Your task to perform on an android device: What's the weather? Image 0: 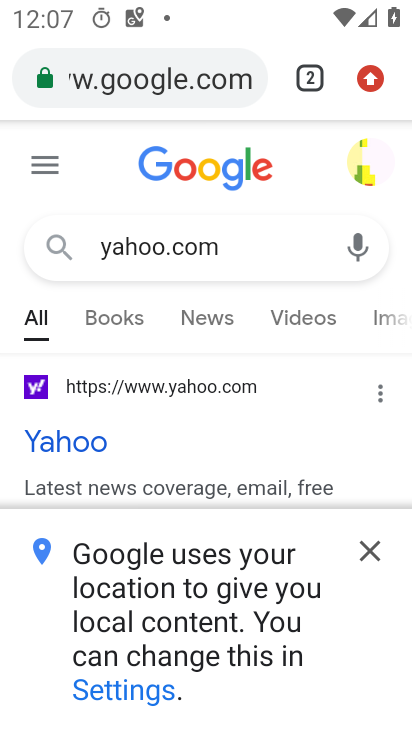
Step 0: click (273, 254)
Your task to perform on an android device: What's the weather? Image 1: 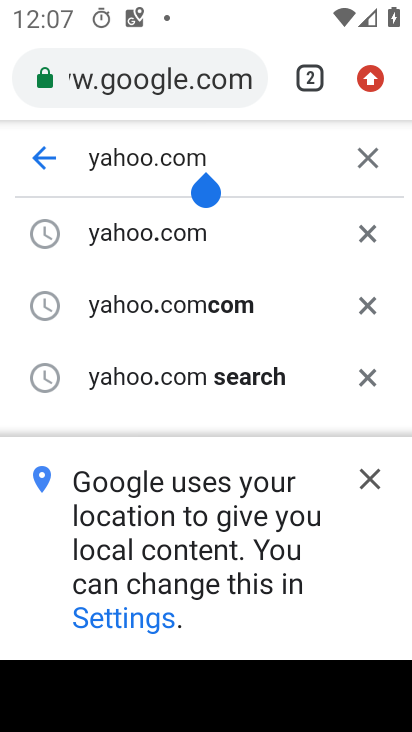
Step 1: click (361, 158)
Your task to perform on an android device: What's the weather? Image 2: 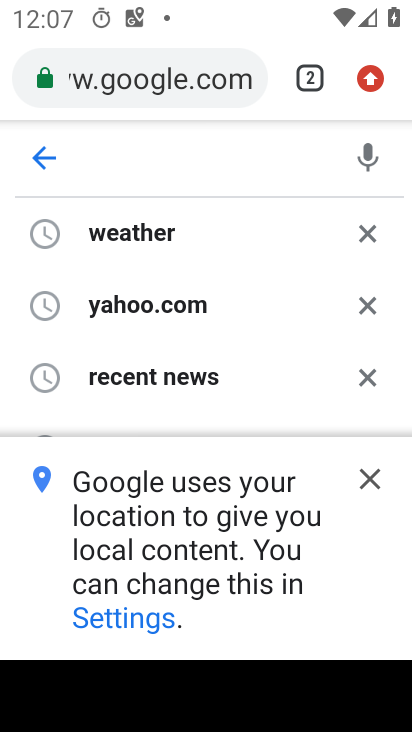
Step 2: type "weather"
Your task to perform on an android device: What's the weather? Image 3: 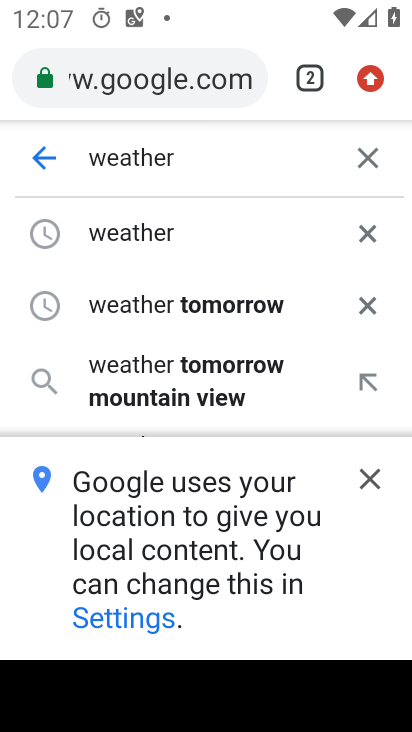
Step 3: click (143, 232)
Your task to perform on an android device: What's the weather? Image 4: 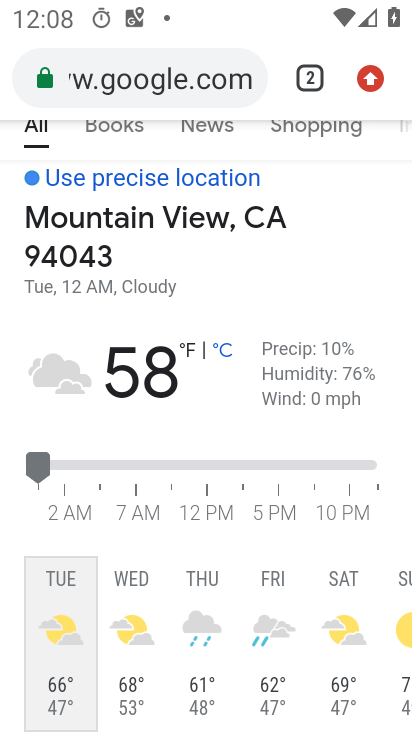
Step 4: task complete